Your task to perform on an android device: turn off translation in the chrome app Image 0: 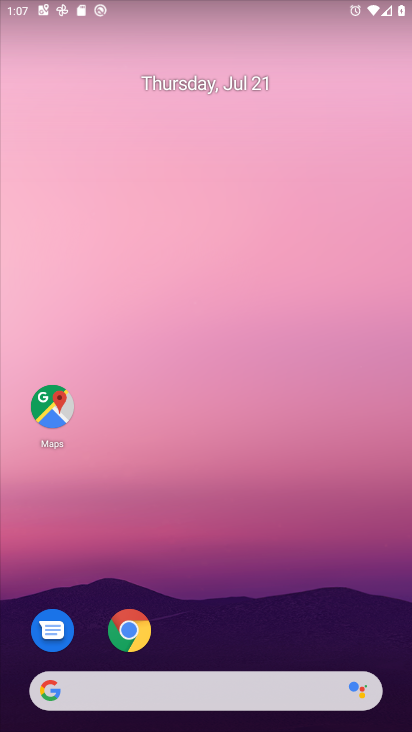
Step 0: drag from (226, 618) to (310, 21)
Your task to perform on an android device: turn off translation in the chrome app Image 1: 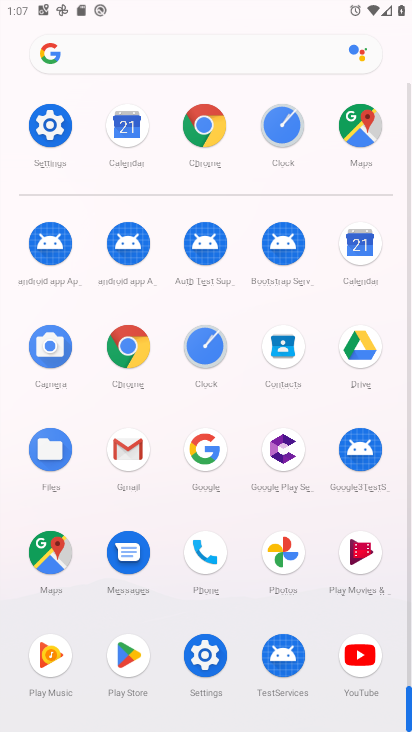
Step 1: click (132, 346)
Your task to perform on an android device: turn off translation in the chrome app Image 2: 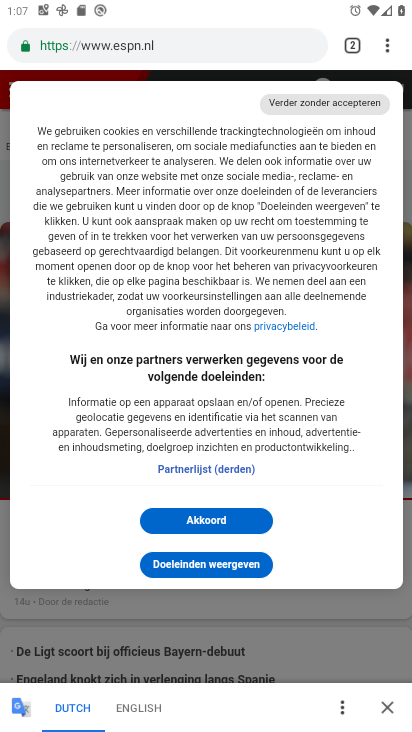
Step 2: drag from (387, 31) to (255, 544)
Your task to perform on an android device: turn off translation in the chrome app Image 3: 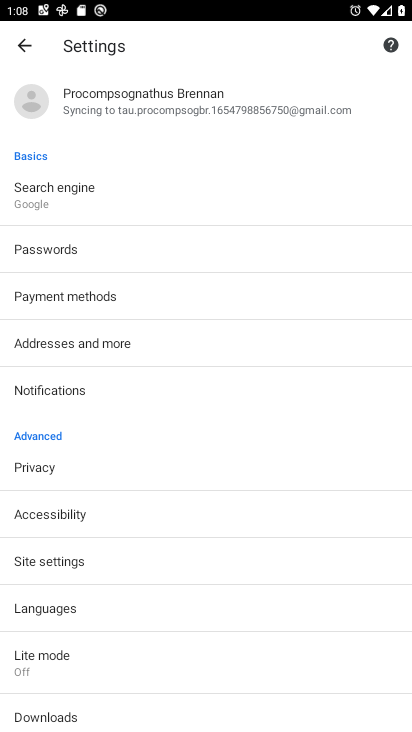
Step 3: drag from (118, 646) to (280, 236)
Your task to perform on an android device: turn off translation in the chrome app Image 4: 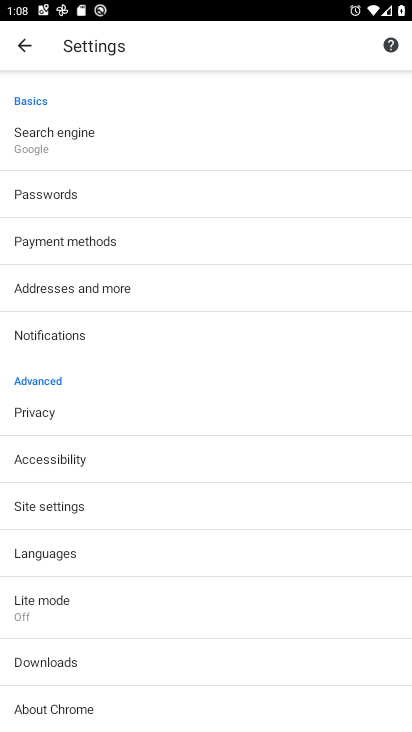
Step 4: click (87, 556)
Your task to perform on an android device: turn off translation in the chrome app Image 5: 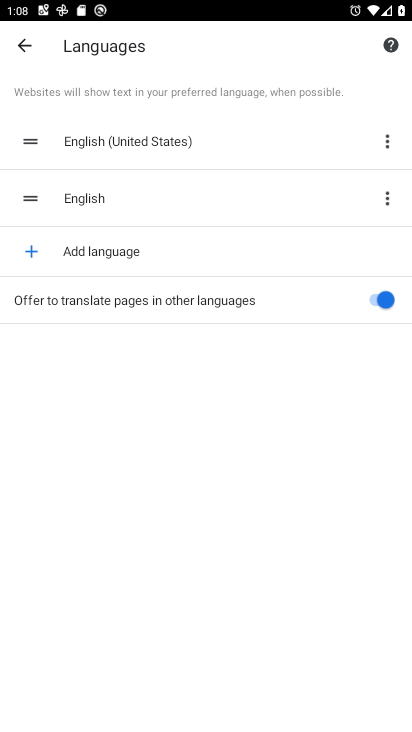
Step 5: click (384, 303)
Your task to perform on an android device: turn off translation in the chrome app Image 6: 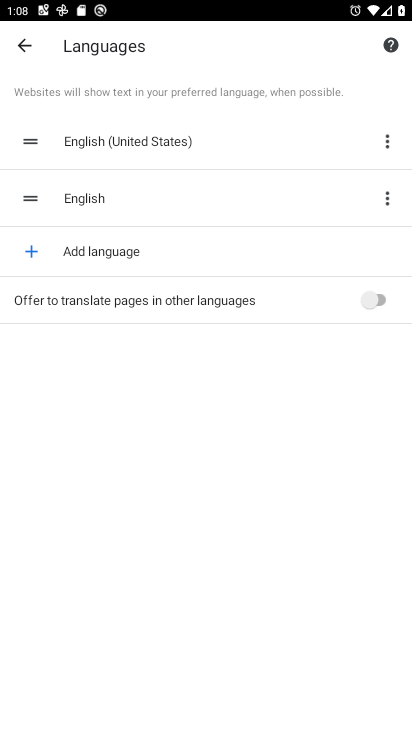
Step 6: task complete